Your task to perform on an android device: change your default location settings in chrome Image 0: 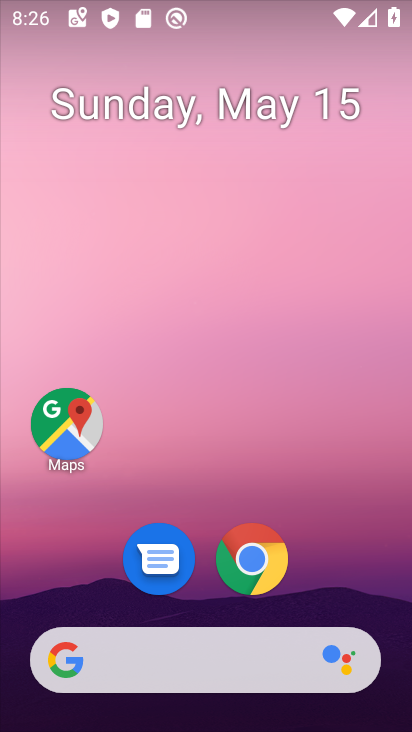
Step 0: click (255, 570)
Your task to perform on an android device: change your default location settings in chrome Image 1: 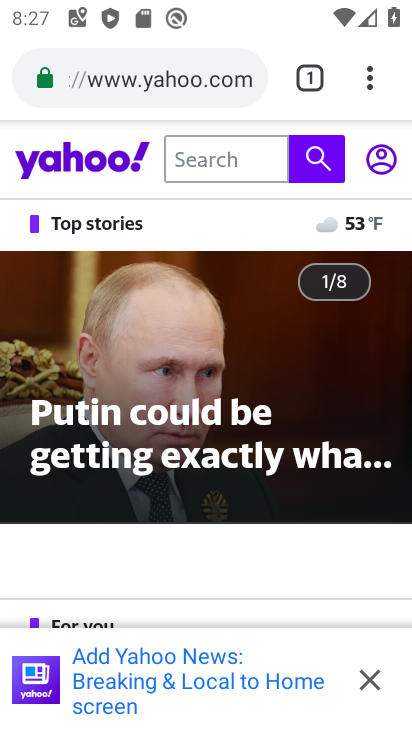
Step 1: click (372, 81)
Your task to perform on an android device: change your default location settings in chrome Image 2: 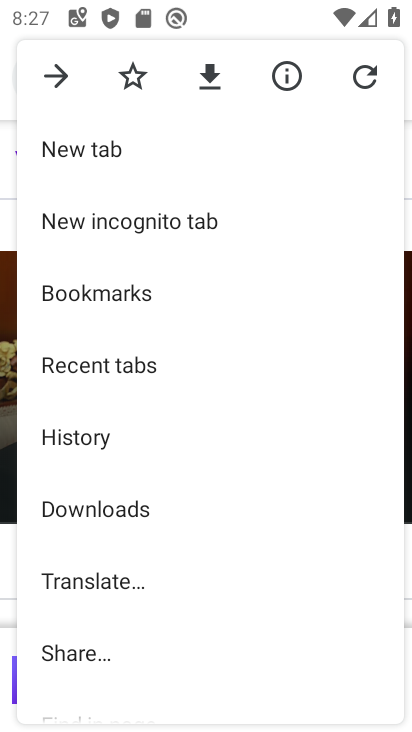
Step 2: drag from (264, 472) to (275, 371)
Your task to perform on an android device: change your default location settings in chrome Image 3: 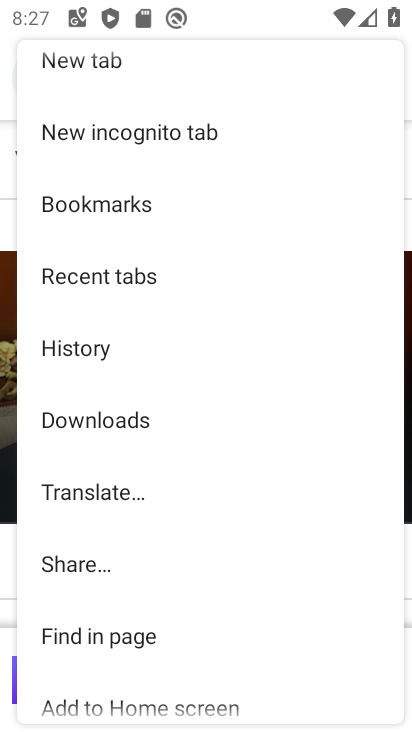
Step 3: drag from (205, 167) to (209, 202)
Your task to perform on an android device: change your default location settings in chrome Image 4: 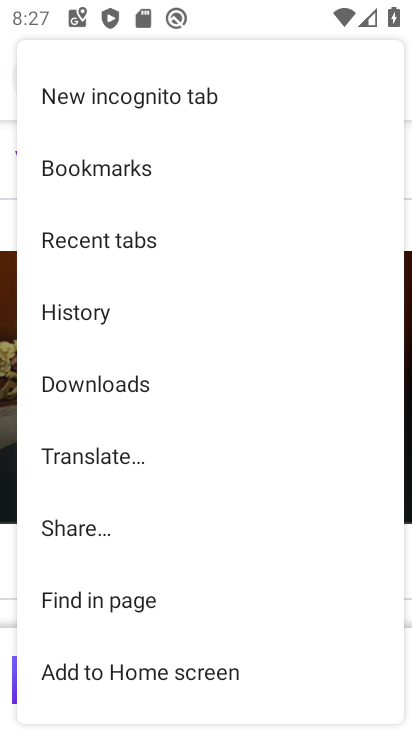
Step 4: drag from (174, 626) to (227, 404)
Your task to perform on an android device: change your default location settings in chrome Image 5: 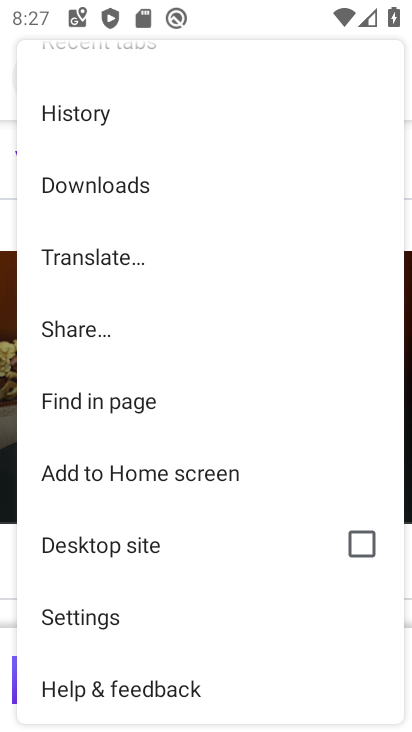
Step 5: click (168, 610)
Your task to perform on an android device: change your default location settings in chrome Image 6: 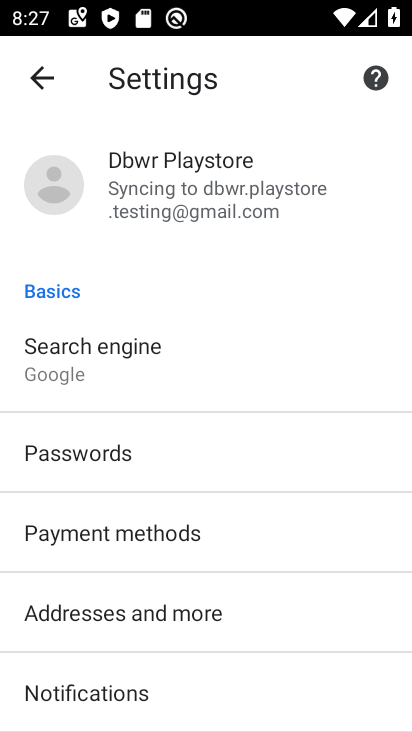
Step 6: click (198, 621)
Your task to perform on an android device: change your default location settings in chrome Image 7: 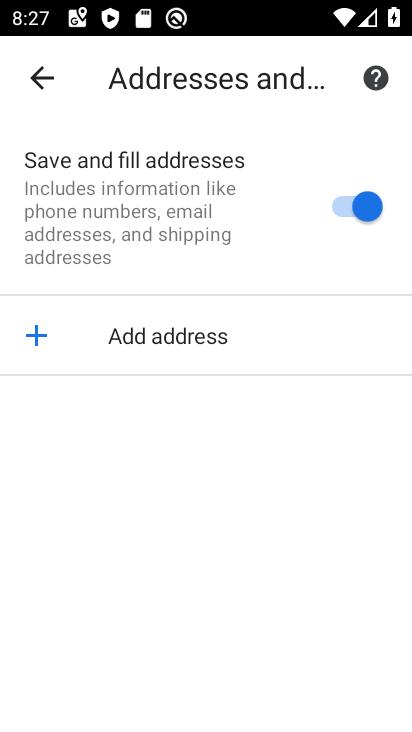
Step 7: task complete